Your task to perform on an android device: uninstall "VLC for Android" Image 0: 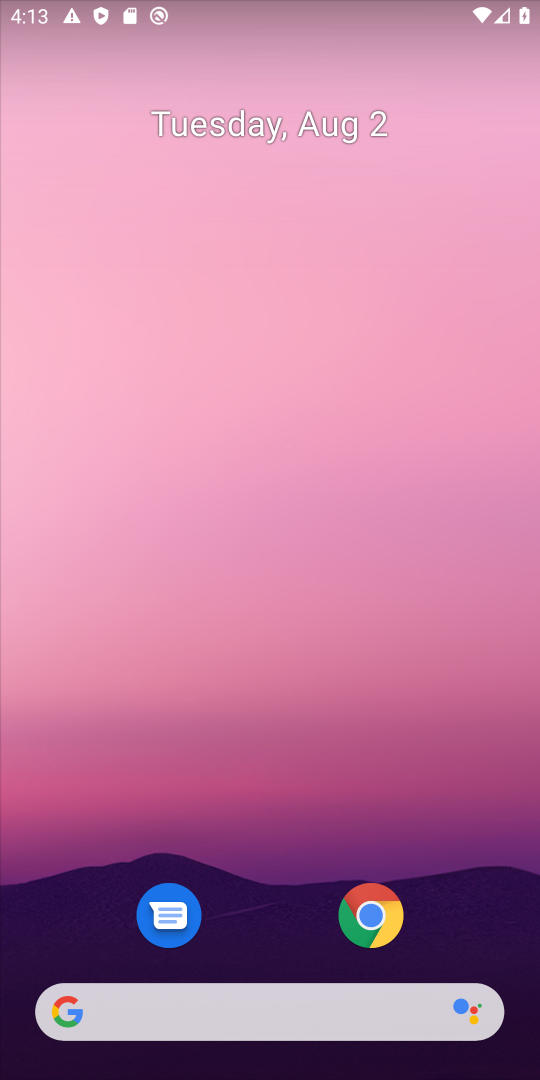
Step 0: drag from (256, 875) to (289, 210)
Your task to perform on an android device: uninstall "VLC for Android" Image 1: 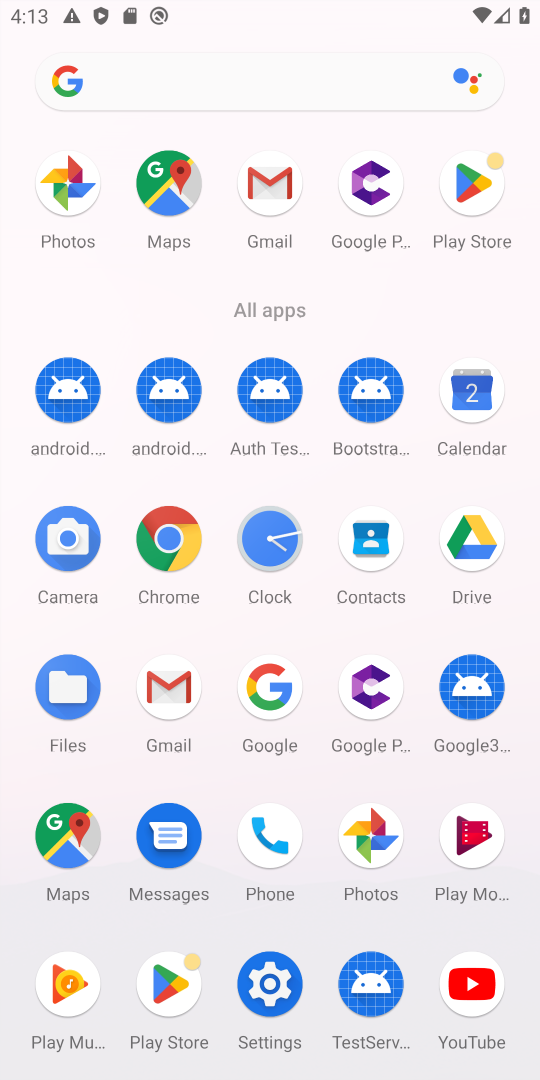
Step 1: click (476, 194)
Your task to perform on an android device: uninstall "VLC for Android" Image 2: 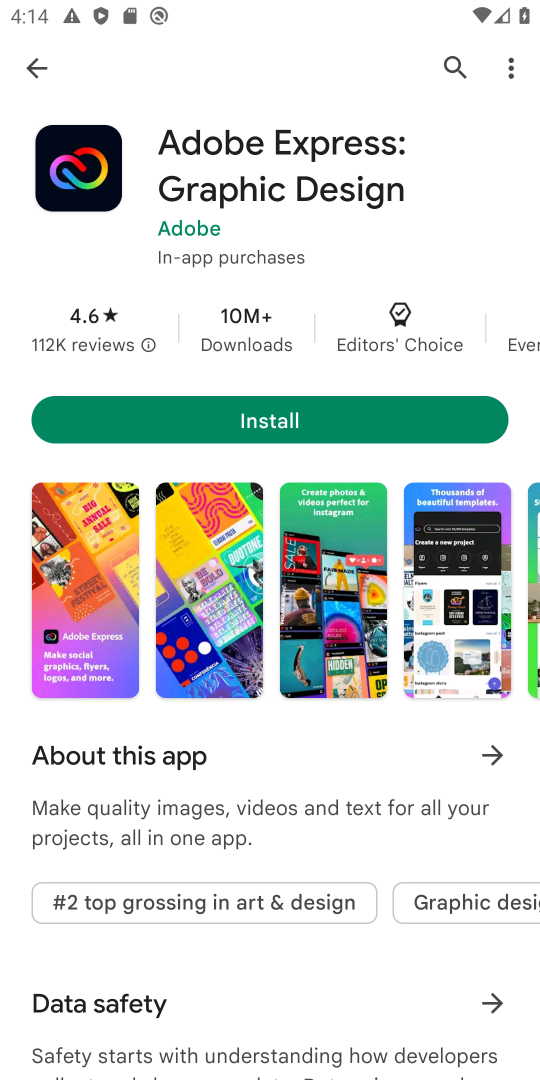
Step 2: click (453, 72)
Your task to perform on an android device: uninstall "VLC for Android" Image 3: 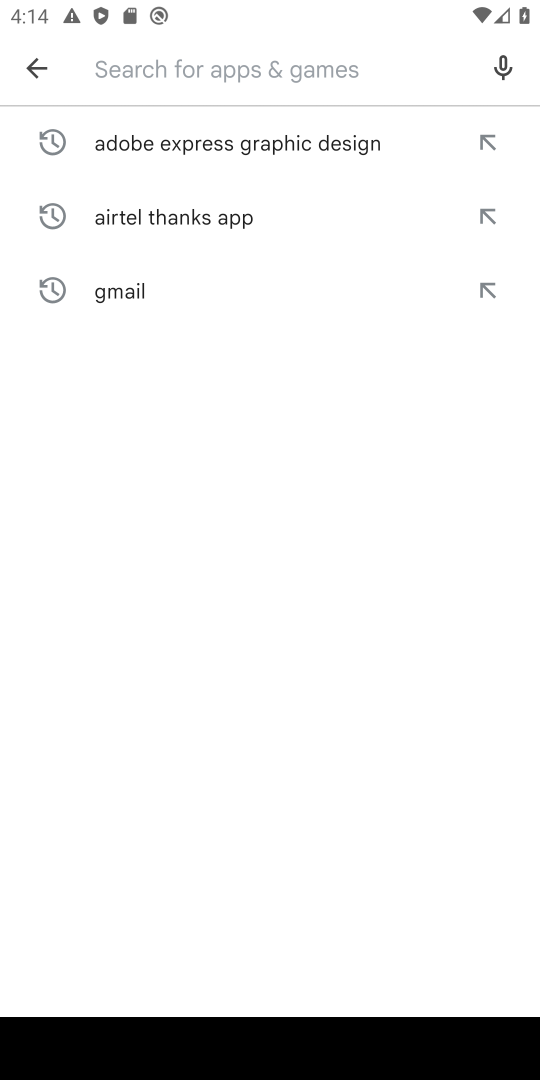
Step 3: type "VLC for android"
Your task to perform on an android device: uninstall "VLC for Android" Image 4: 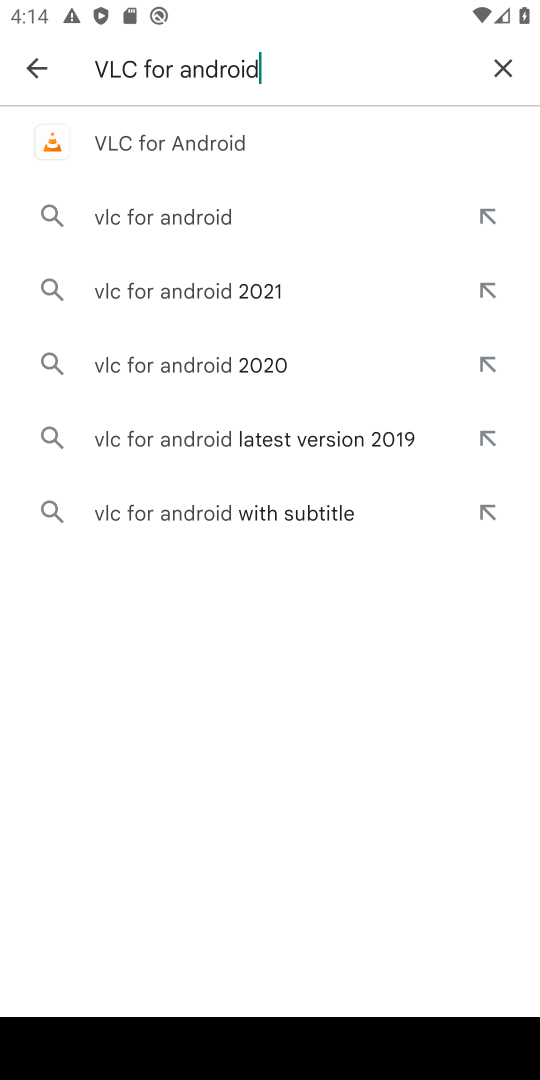
Step 4: click (170, 151)
Your task to perform on an android device: uninstall "VLC for Android" Image 5: 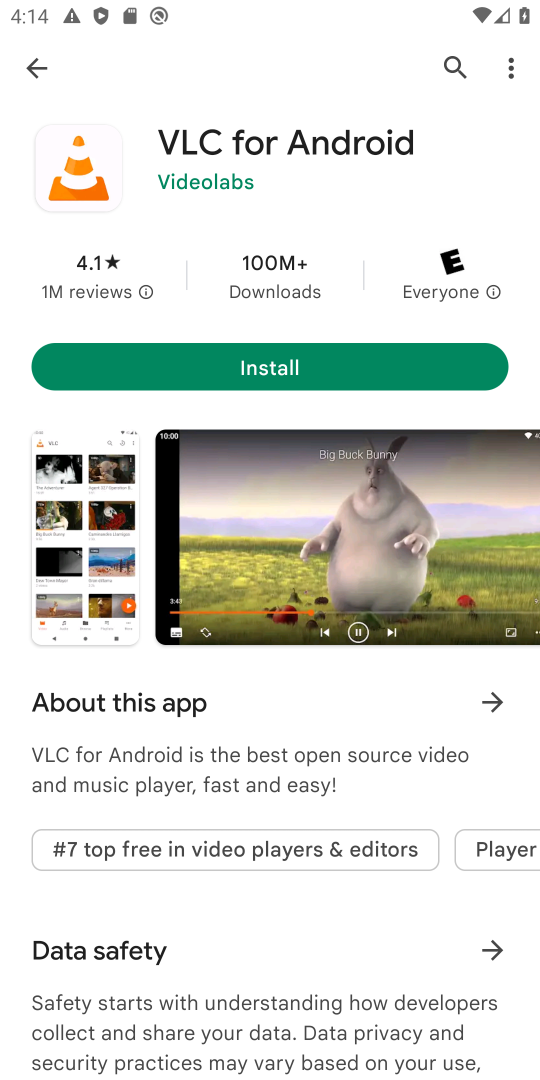
Step 5: task complete